Your task to perform on an android device: turn pop-ups off in chrome Image 0: 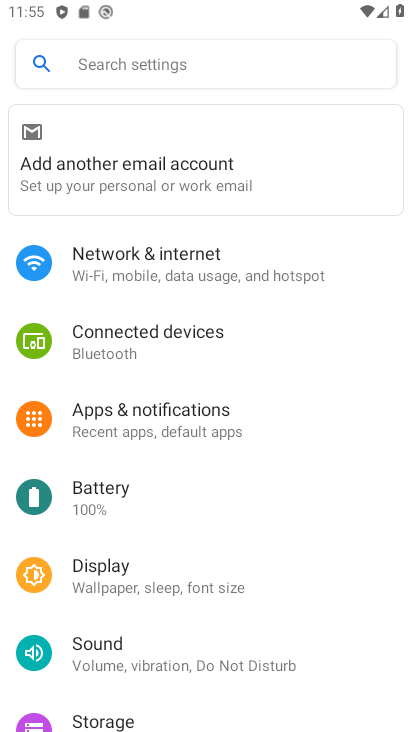
Step 0: press home button
Your task to perform on an android device: turn pop-ups off in chrome Image 1: 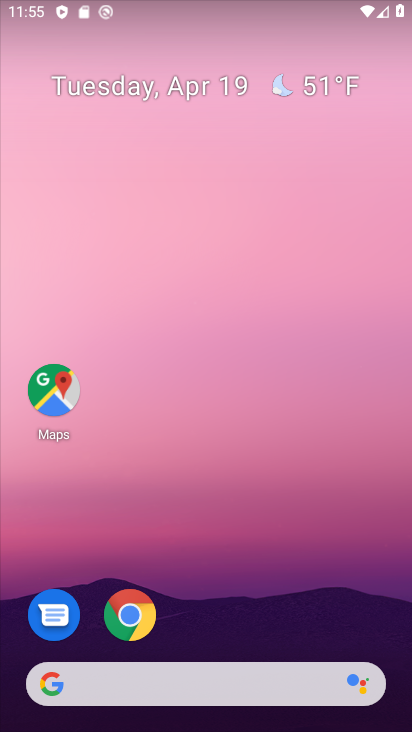
Step 1: click (131, 622)
Your task to perform on an android device: turn pop-ups off in chrome Image 2: 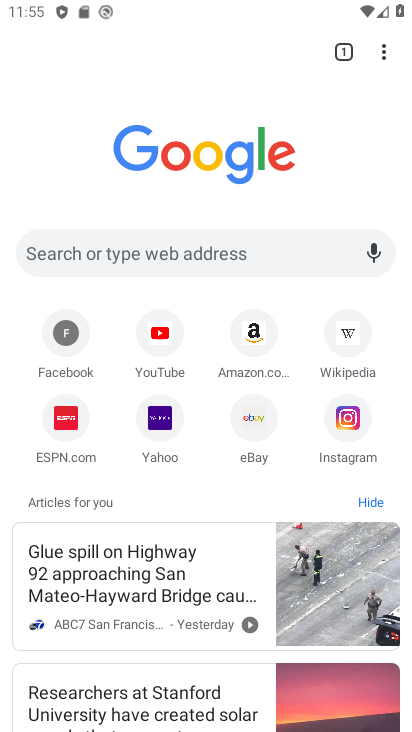
Step 2: click (383, 52)
Your task to perform on an android device: turn pop-ups off in chrome Image 3: 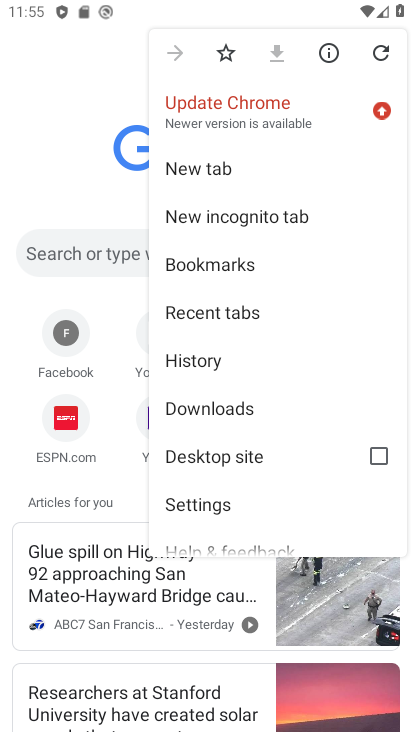
Step 3: click (218, 502)
Your task to perform on an android device: turn pop-ups off in chrome Image 4: 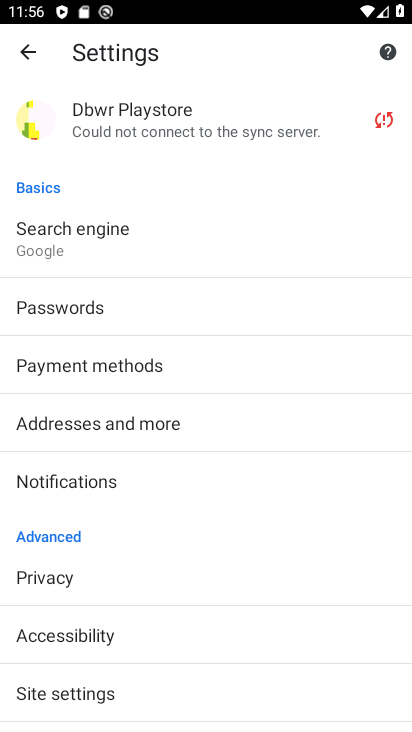
Step 4: click (71, 693)
Your task to perform on an android device: turn pop-ups off in chrome Image 5: 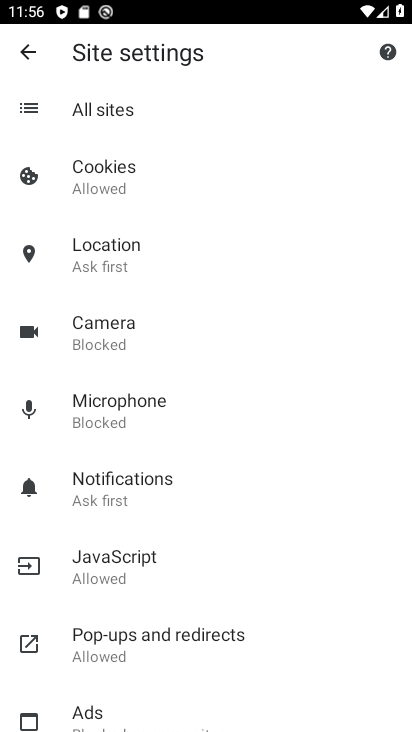
Step 5: click (112, 655)
Your task to perform on an android device: turn pop-ups off in chrome Image 6: 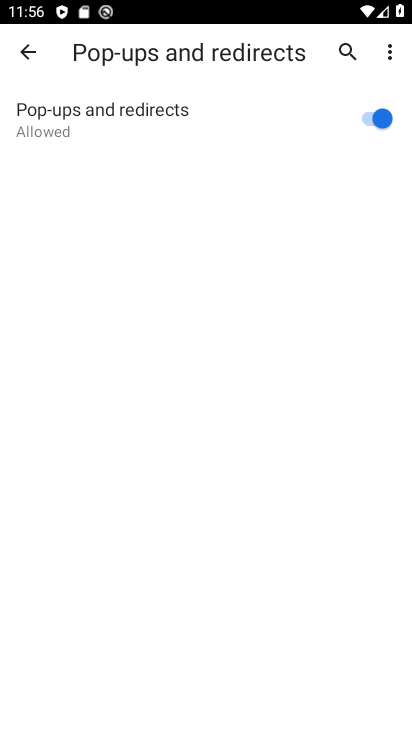
Step 6: click (376, 119)
Your task to perform on an android device: turn pop-ups off in chrome Image 7: 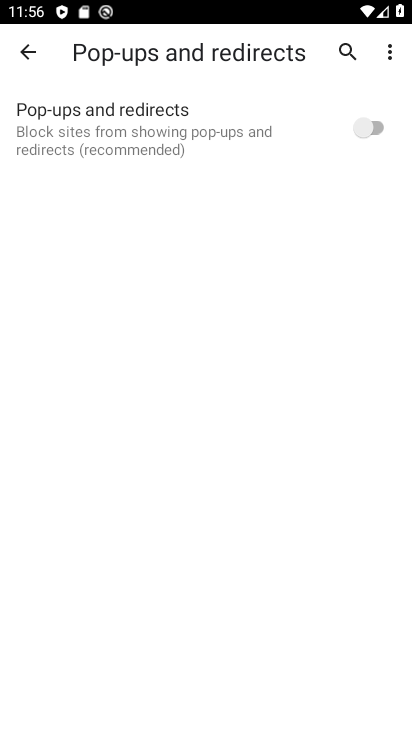
Step 7: task complete